Your task to perform on an android device: Clear the cart on bestbuy. Search for sony triple a on bestbuy, select the first entry, add it to the cart, then select checkout. Image 0: 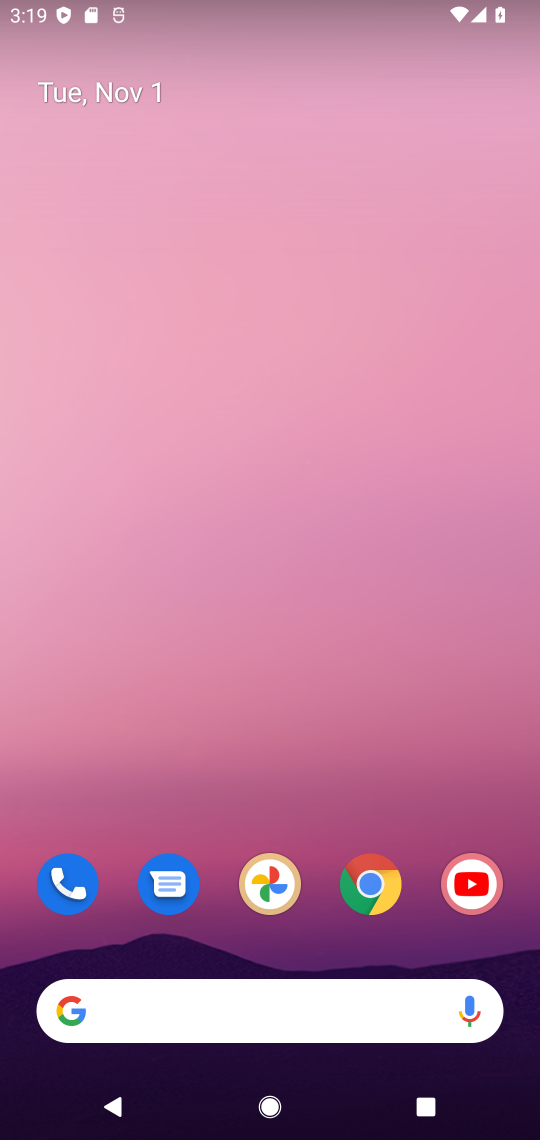
Step 0: click (368, 894)
Your task to perform on an android device: Clear the cart on bestbuy. Search for sony triple a on bestbuy, select the first entry, add it to the cart, then select checkout. Image 1: 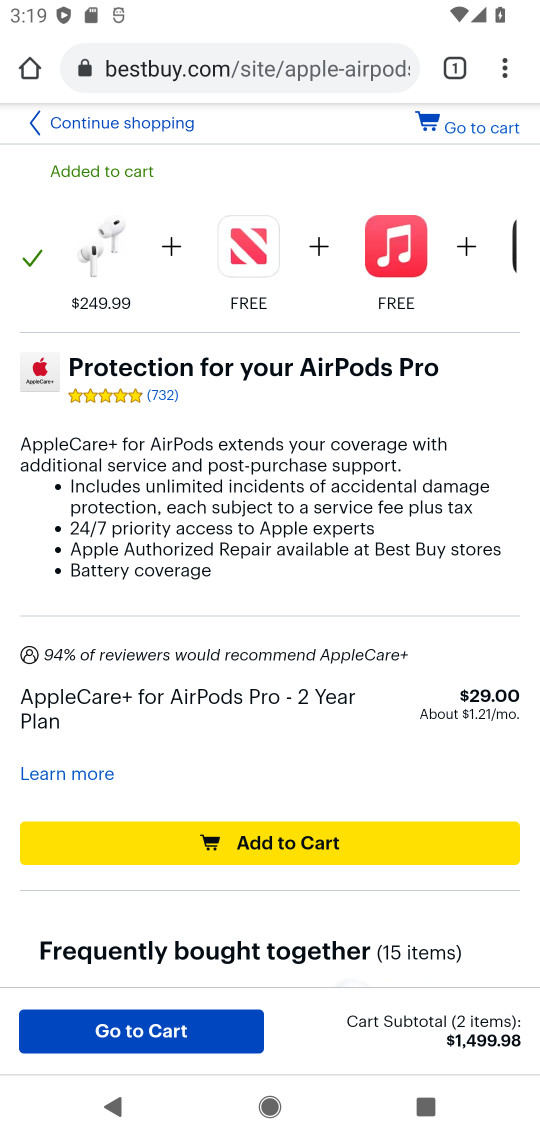
Step 1: click (319, 70)
Your task to perform on an android device: Clear the cart on bestbuy. Search for sony triple a on bestbuy, select the first entry, add it to the cart, then select checkout. Image 2: 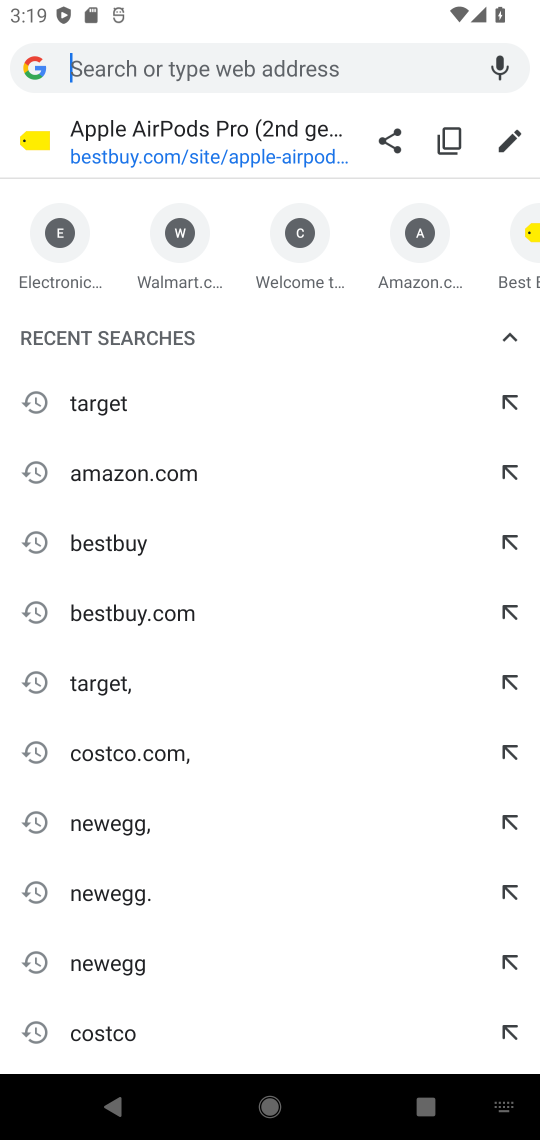
Step 2: type "bestbuy"
Your task to perform on an android device: Clear the cart on bestbuy. Search for sony triple a on bestbuy, select the first entry, add it to the cart, then select checkout. Image 3: 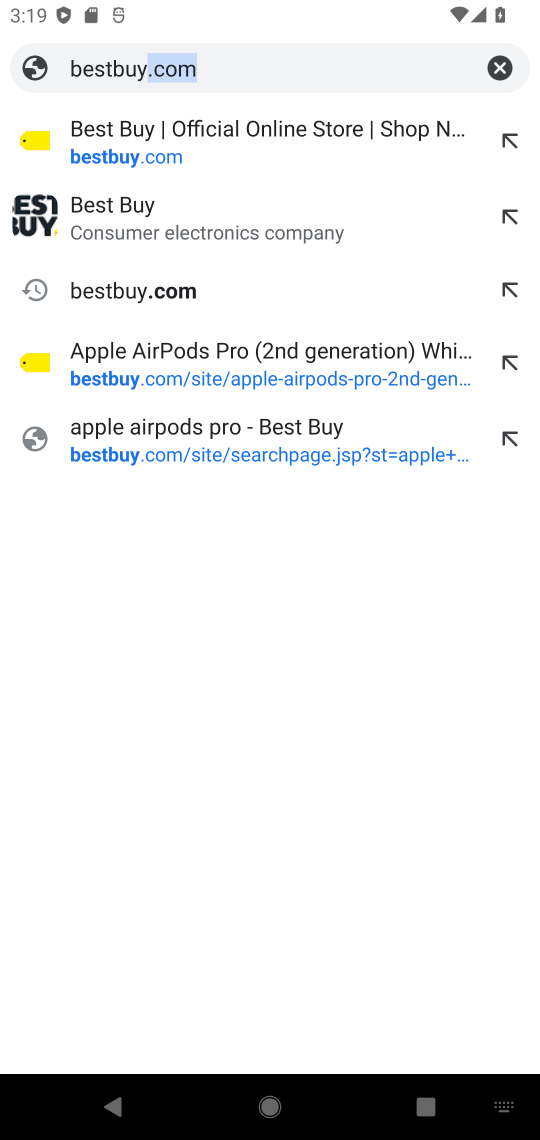
Step 3: click (320, 64)
Your task to perform on an android device: Clear the cart on bestbuy. Search for sony triple a on bestbuy, select the first entry, add it to the cart, then select checkout. Image 4: 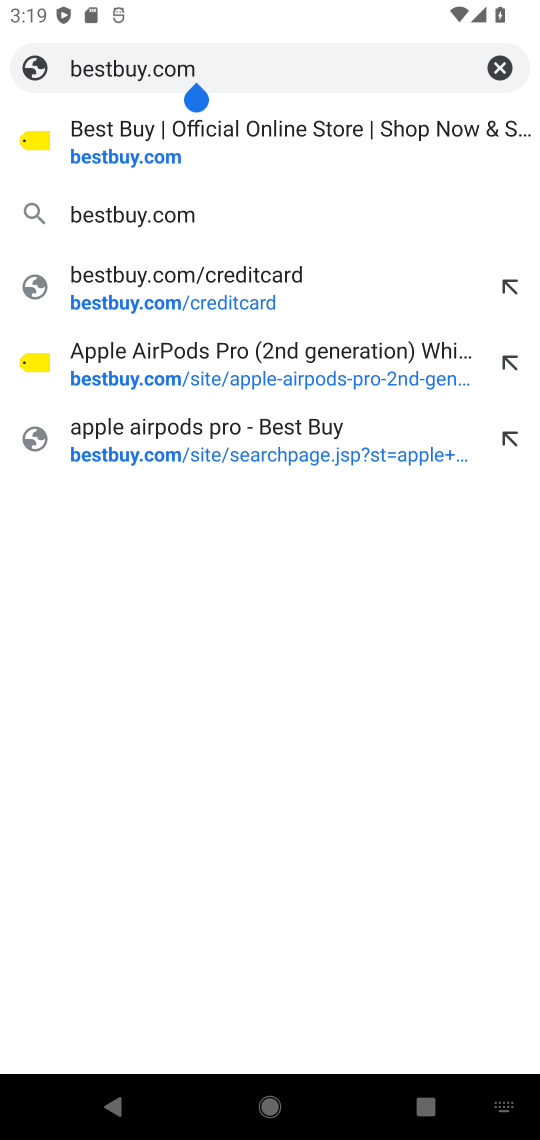
Step 4: click (167, 208)
Your task to perform on an android device: Clear the cart on bestbuy. Search for sony triple a on bestbuy, select the first entry, add it to the cart, then select checkout. Image 5: 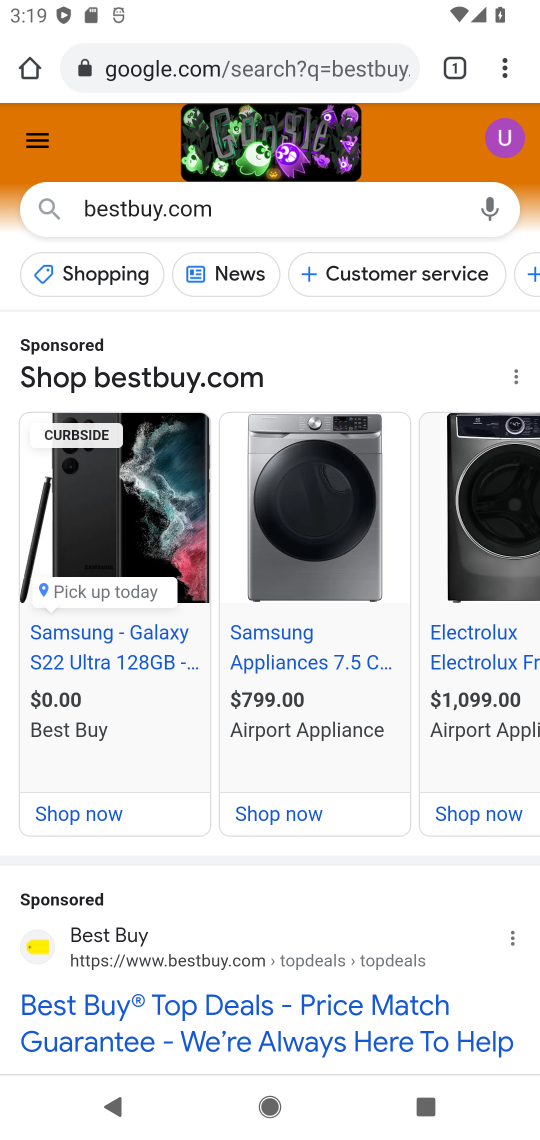
Step 5: click (122, 931)
Your task to perform on an android device: Clear the cart on bestbuy. Search for sony triple a on bestbuy, select the first entry, add it to the cart, then select checkout. Image 6: 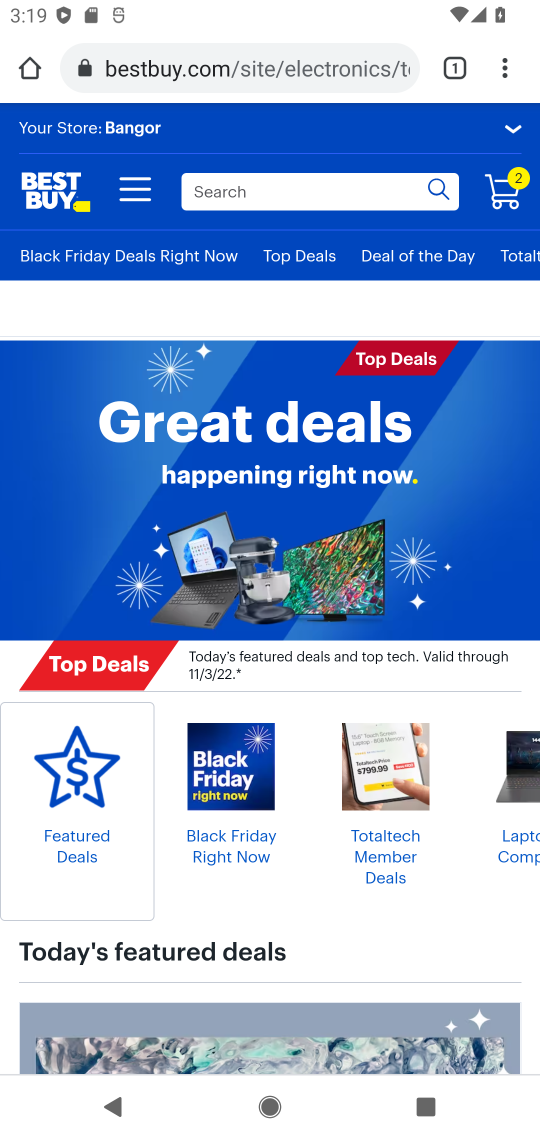
Step 6: click (501, 188)
Your task to perform on an android device: Clear the cart on bestbuy. Search for sony triple a on bestbuy, select the first entry, add it to the cart, then select checkout. Image 7: 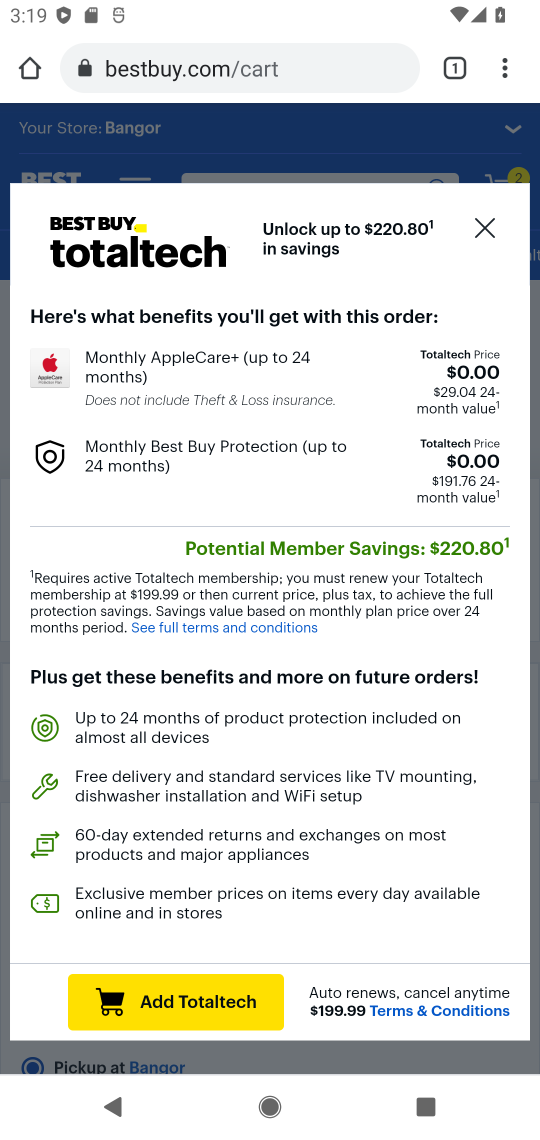
Step 7: click (484, 223)
Your task to perform on an android device: Clear the cart on bestbuy. Search for sony triple a on bestbuy, select the first entry, add it to the cart, then select checkout. Image 8: 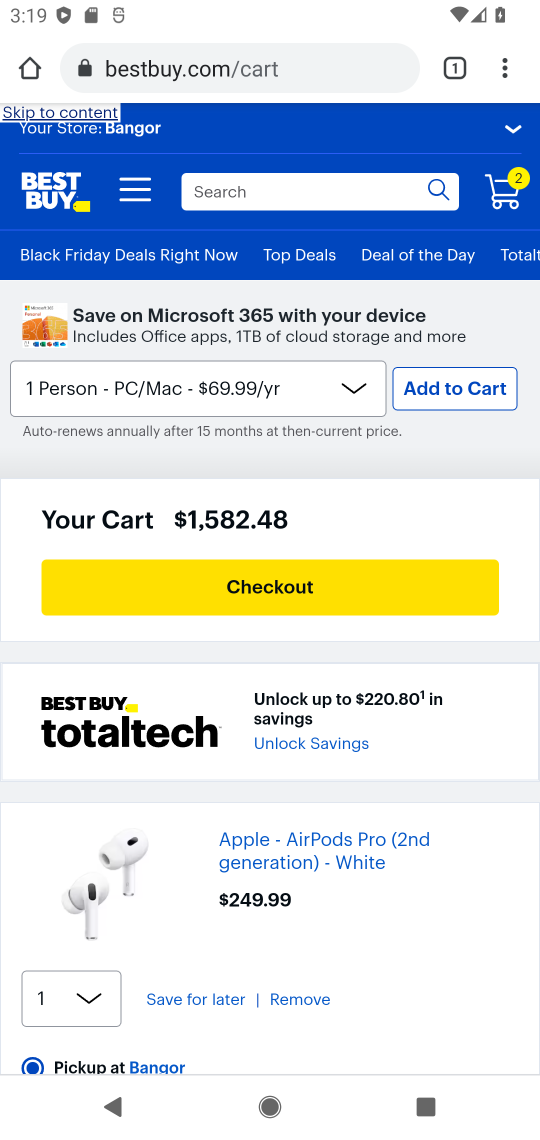
Step 8: click (310, 1000)
Your task to perform on an android device: Clear the cart on bestbuy. Search for sony triple a on bestbuy, select the first entry, add it to the cart, then select checkout. Image 9: 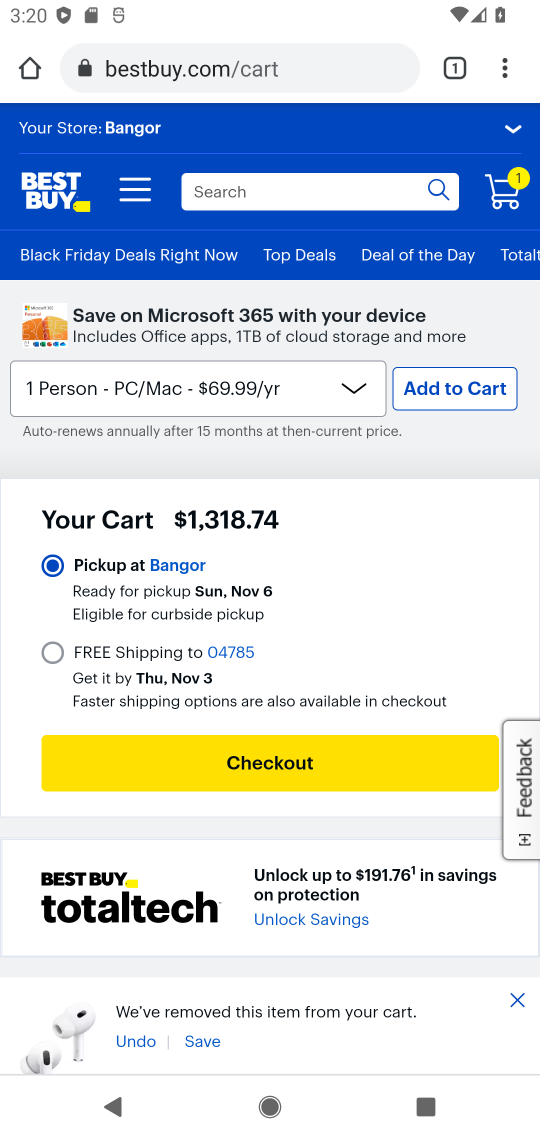
Step 9: drag from (337, 861) to (336, 489)
Your task to perform on an android device: Clear the cart on bestbuy. Search for sony triple a on bestbuy, select the first entry, add it to the cart, then select checkout. Image 10: 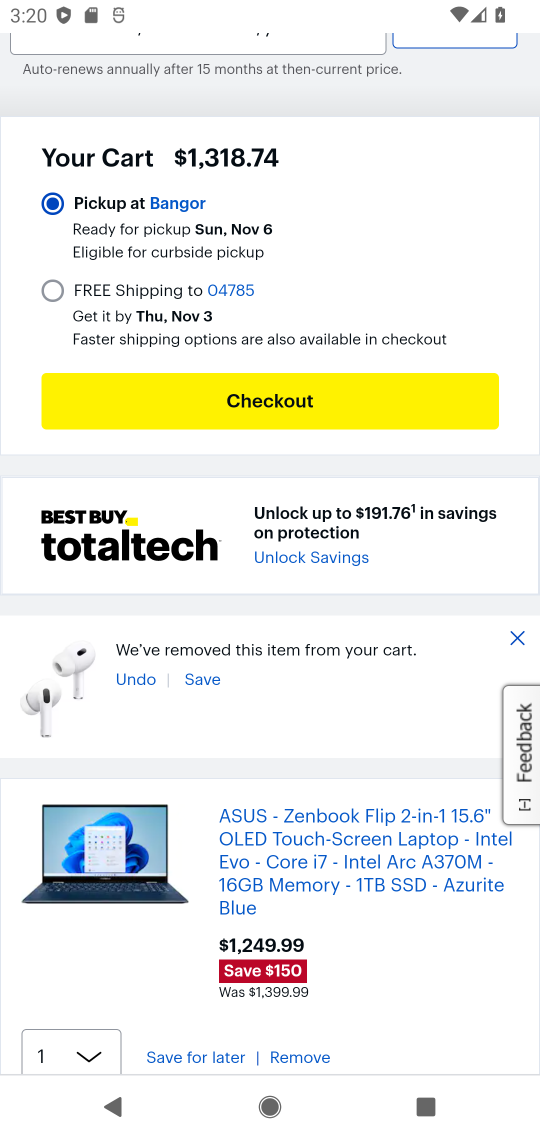
Step 10: click (522, 638)
Your task to perform on an android device: Clear the cart on bestbuy. Search for sony triple a on bestbuy, select the first entry, add it to the cart, then select checkout. Image 11: 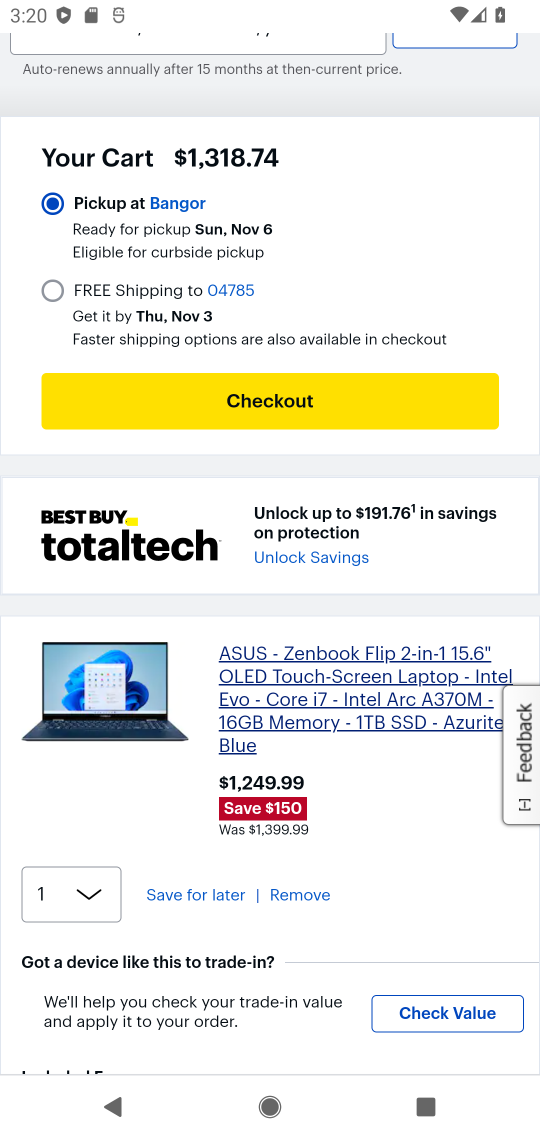
Step 11: click (291, 889)
Your task to perform on an android device: Clear the cart on bestbuy. Search for sony triple a on bestbuy, select the first entry, add it to the cart, then select checkout. Image 12: 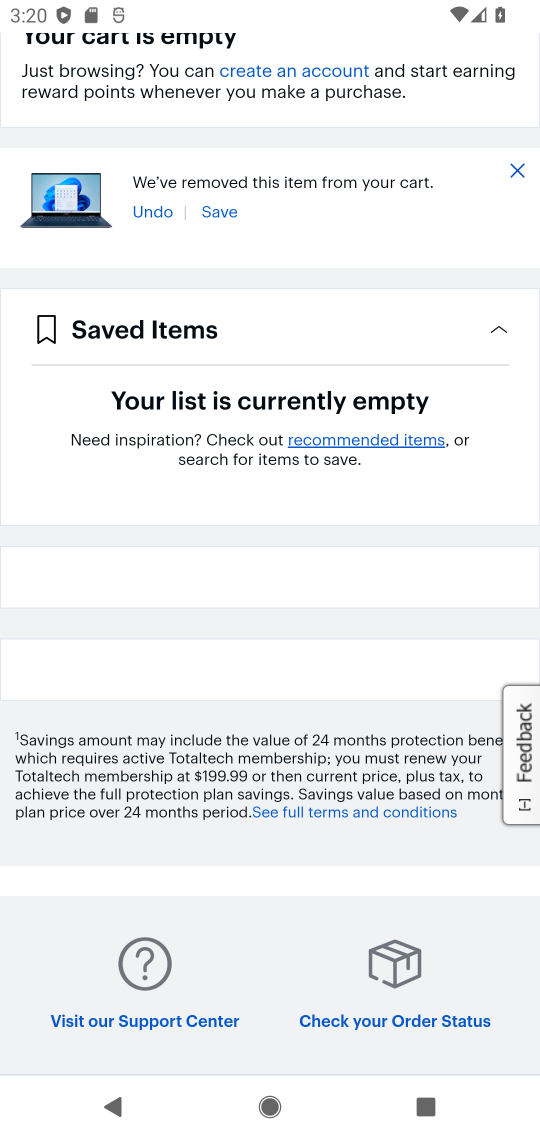
Step 12: drag from (450, 232) to (421, 627)
Your task to perform on an android device: Clear the cart on bestbuy. Search for sony triple a on bestbuy, select the first entry, add it to the cart, then select checkout. Image 13: 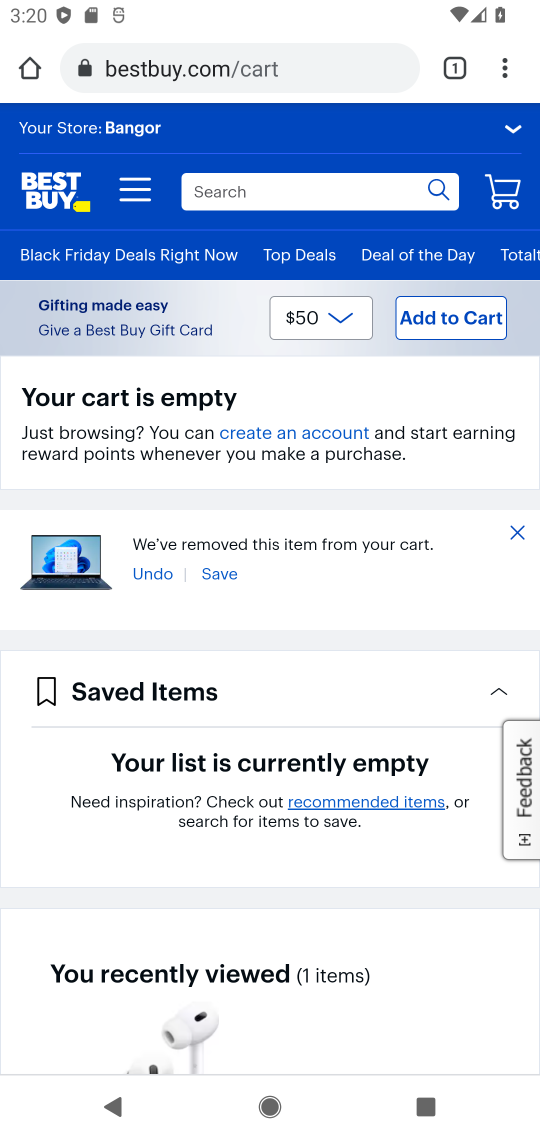
Step 13: click (514, 530)
Your task to perform on an android device: Clear the cart on bestbuy. Search for sony triple a on bestbuy, select the first entry, add it to the cart, then select checkout. Image 14: 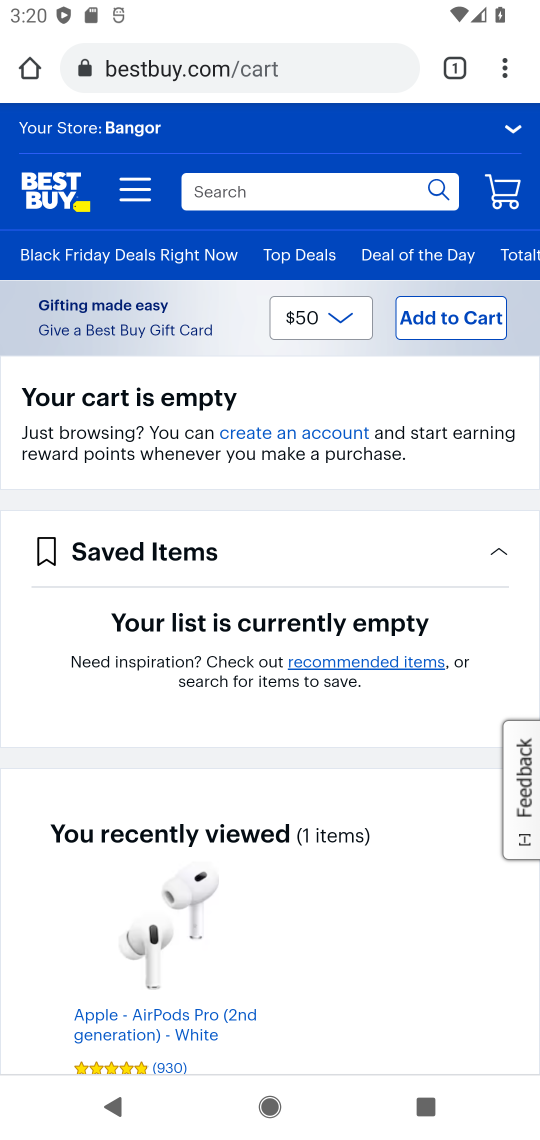
Step 14: click (370, 191)
Your task to perform on an android device: Clear the cart on bestbuy. Search for sony triple a on bestbuy, select the first entry, add it to the cart, then select checkout. Image 15: 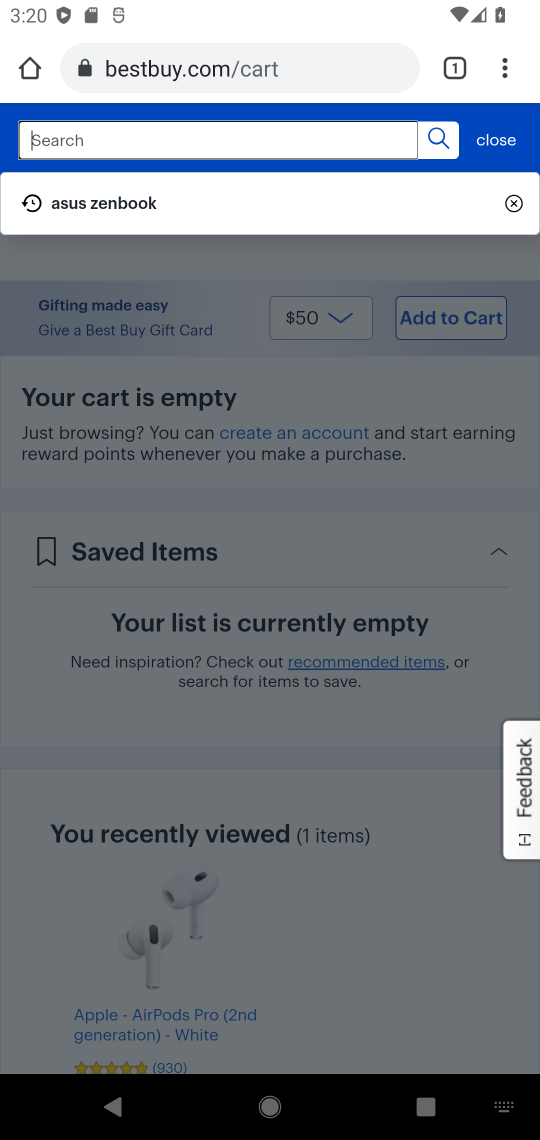
Step 15: type "sony triple a"
Your task to perform on an android device: Clear the cart on bestbuy. Search for sony triple a on bestbuy, select the first entry, add it to the cart, then select checkout. Image 16: 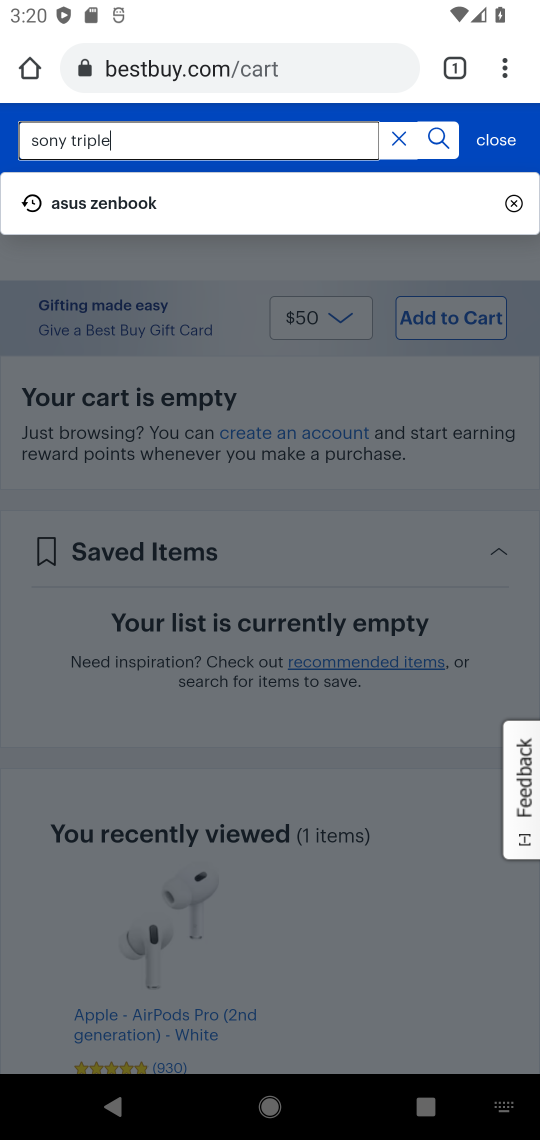
Step 16: press enter
Your task to perform on an android device: Clear the cart on bestbuy. Search for sony triple a on bestbuy, select the first entry, add it to the cart, then select checkout. Image 17: 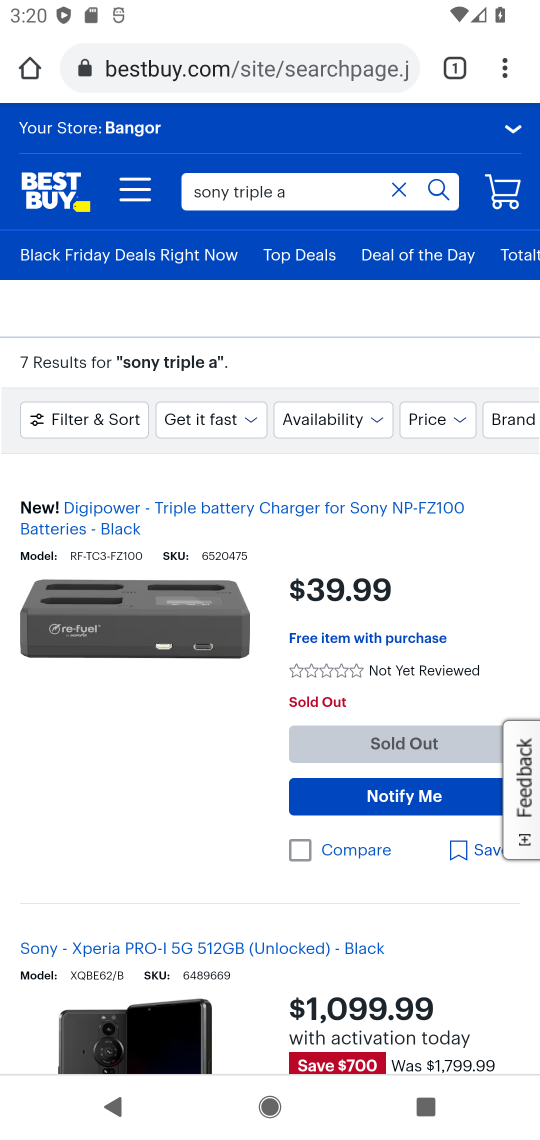
Step 17: task complete